Your task to perform on an android device: Open the Play Movies app and select the watchlist tab. Image 0: 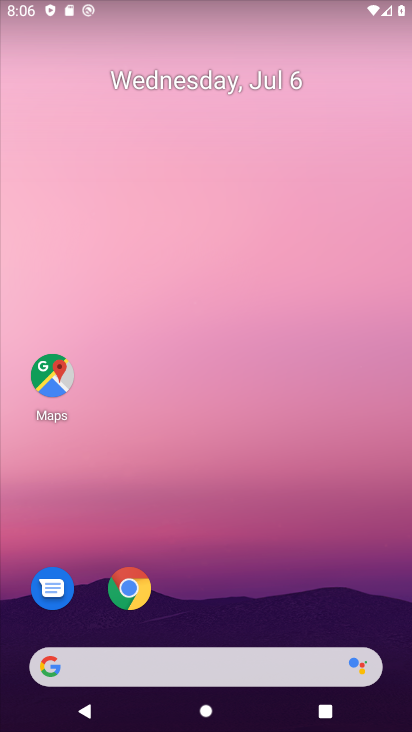
Step 0: drag from (243, 630) to (191, 263)
Your task to perform on an android device: Open the Play Movies app and select the watchlist tab. Image 1: 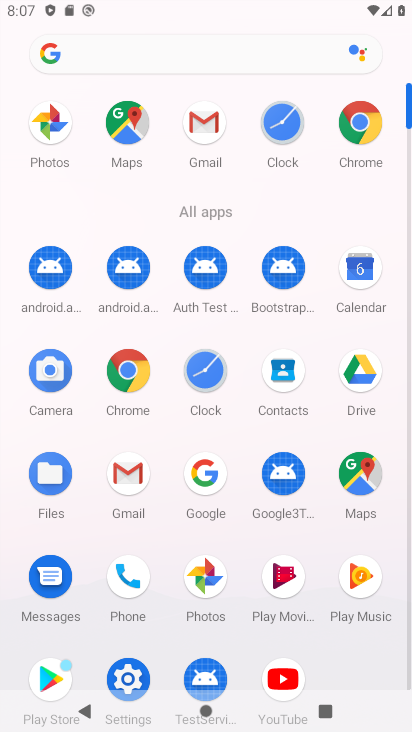
Step 1: click (296, 571)
Your task to perform on an android device: Open the Play Movies app and select the watchlist tab. Image 2: 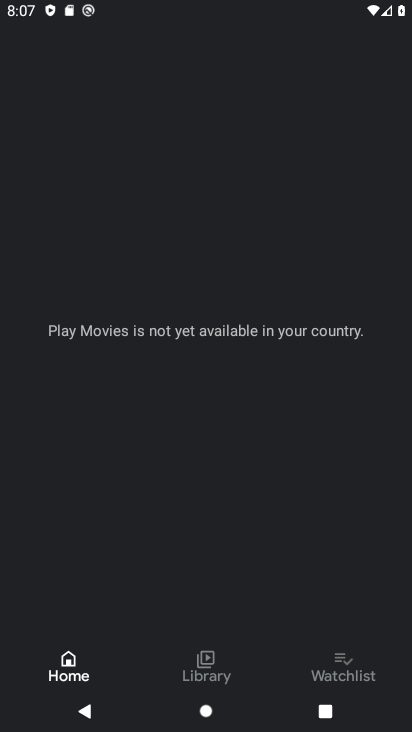
Step 2: click (340, 662)
Your task to perform on an android device: Open the Play Movies app and select the watchlist tab. Image 3: 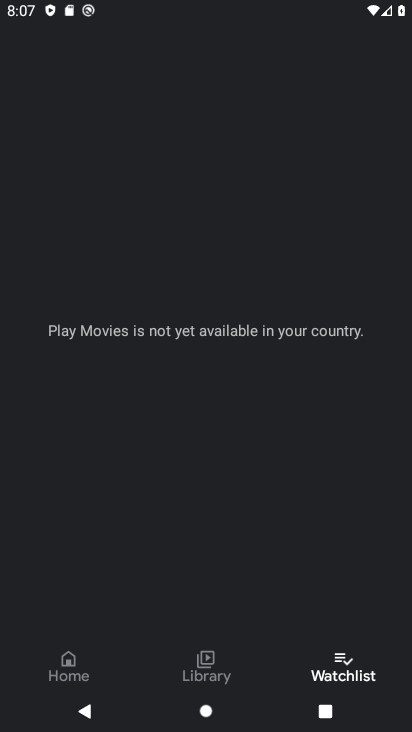
Step 3: task complete